Your task to perform on an android device: turn on priority inbox in the gmail app Image 0: 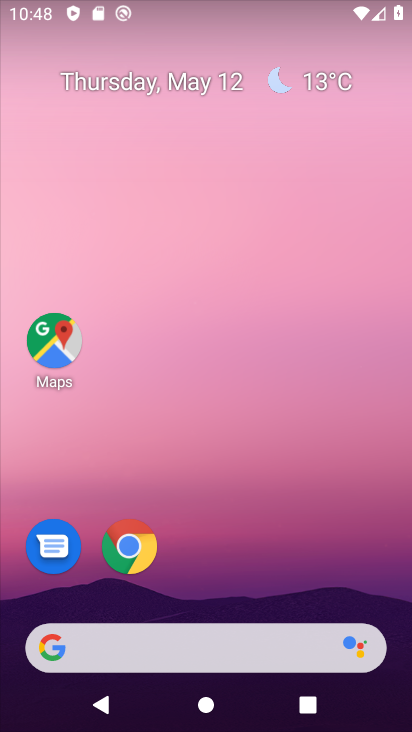
Step 0: drag from (254, 664) to (184, 209)
Your task to perform on an android device: turn on priority inbox in the gmail app Image 1: 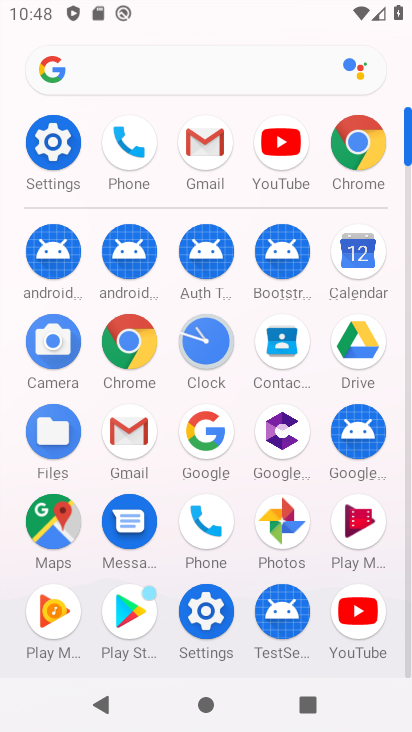
Step 1: click (108, 462)
Your task to perform on an android device: turn on priority inbox in the gmail app Image 2: 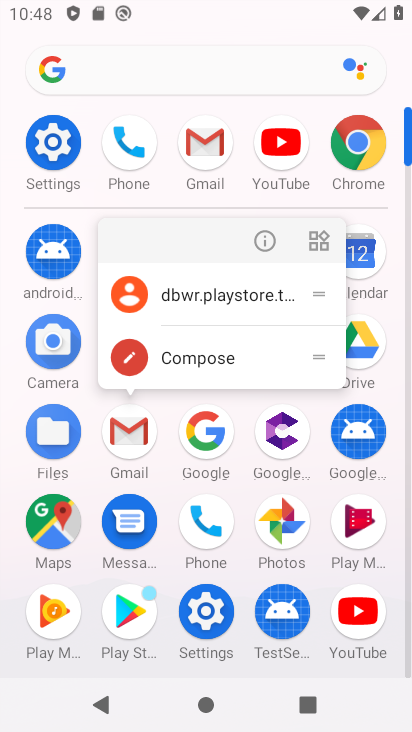
Step 2: click (123, 435)
Your task to perform on an android device: turn on priority inbox in the gmail app Image 3: 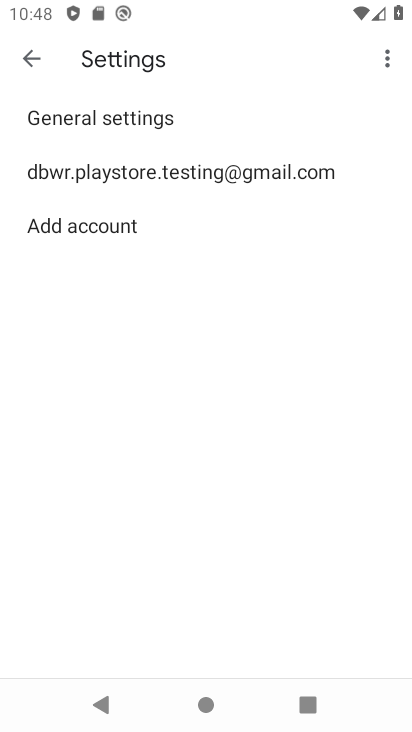
Step 3: click (128, 168)
Your task to perform on an android device: turn on priority inbox in the gmail app Image 4: 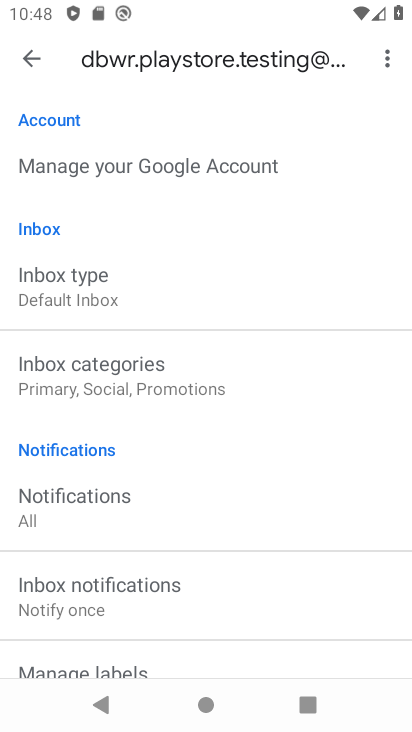
Step 4: click (110, 297)
Your task to perform on an android device: turn on priority inbox in the gmail app Image 5: 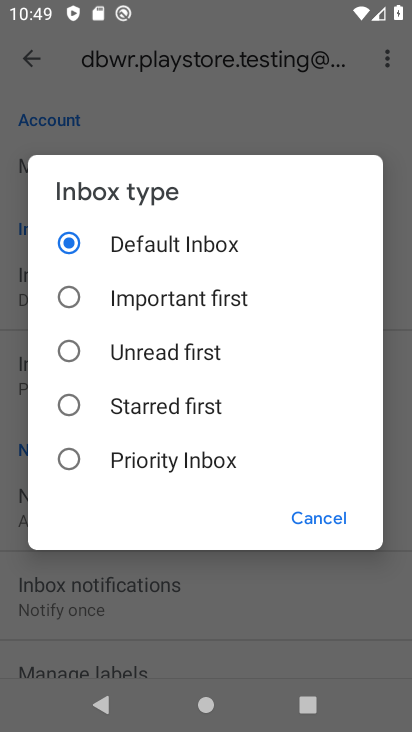
Step 5: click (96, 445)
Your task to perform on an android device: turn on priority inbox in the gmail app Image 6: 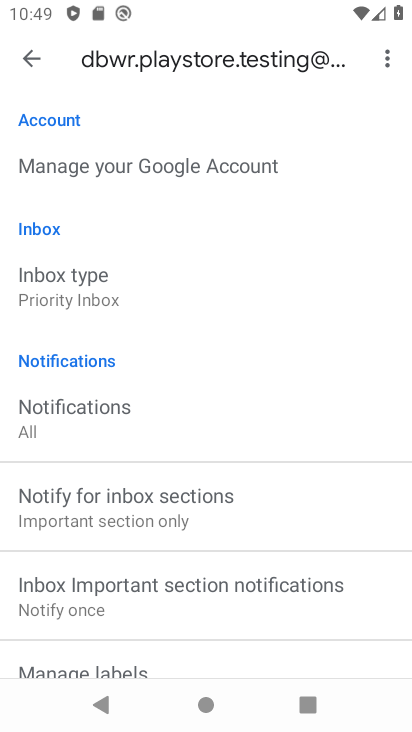
Step 6: task complete